Your task to perform on an android device: Open maps Image 0: 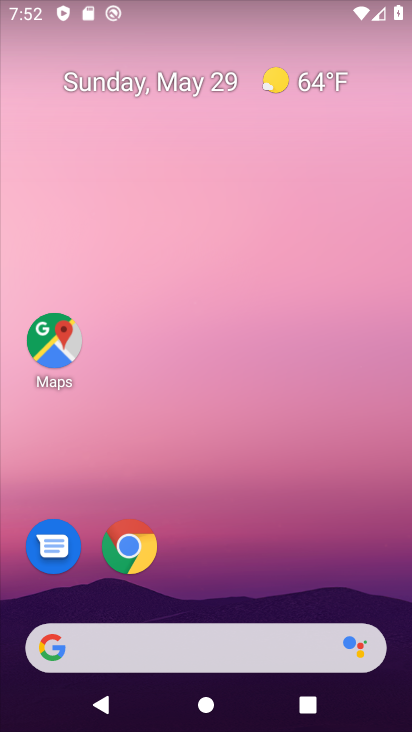
Step 0: click (62, 350)
Your task to perform on an android device: Open maps Image 1: 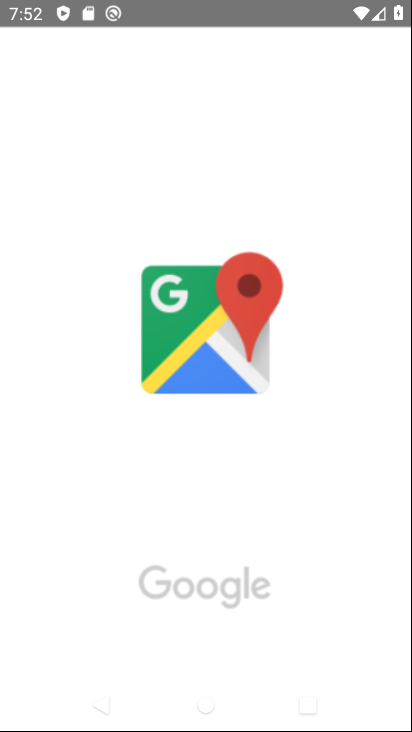
Step 1: task complete